Your task to perform on an android device: toggle javascript in the chrome app Image 0: 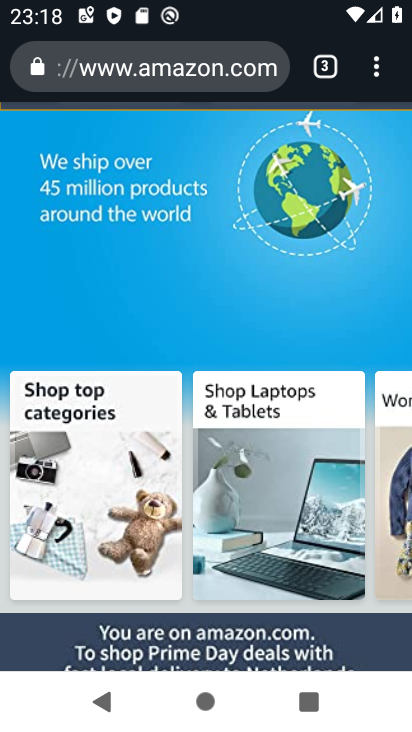
Step 0: press home button
Your task to perform on an android device: toggle javascript in the chrome app Image 1: 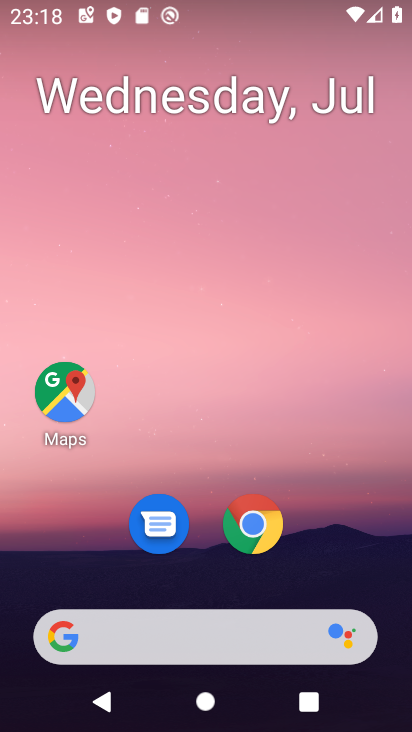
Step 1: click (243, 537)
Your task to perform on an android device: toggle javascript in the chrome app Image 2: 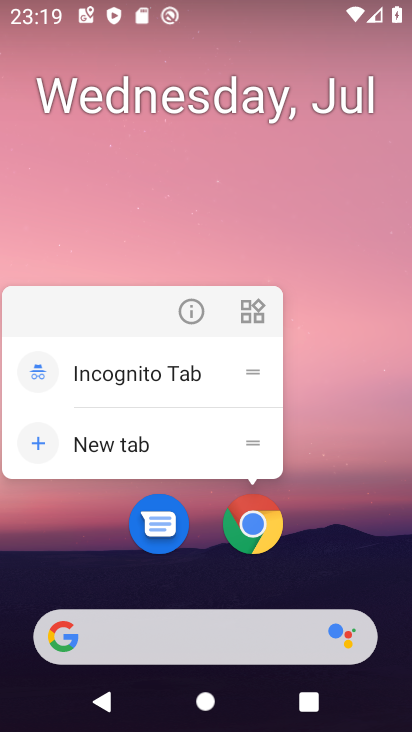
Step 2: click (259, 527)
Your task to perform on an android device: toggle javascript in the chrome app Image 3: 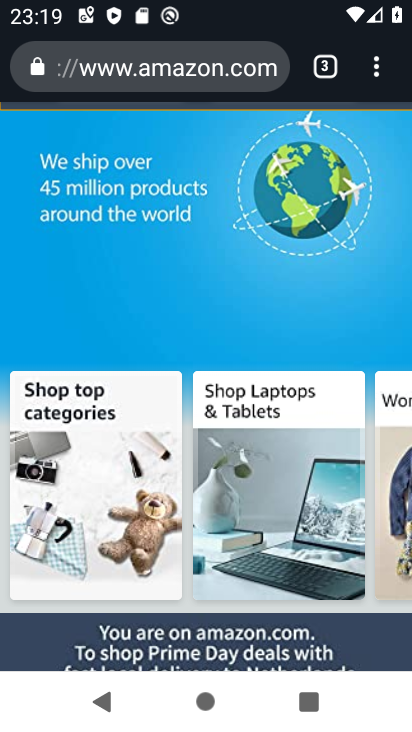
Step 3: drag from (376, 73) to (189, 534)
Your task to perform on an android device: toggle javascript in the chrome app Image 4: 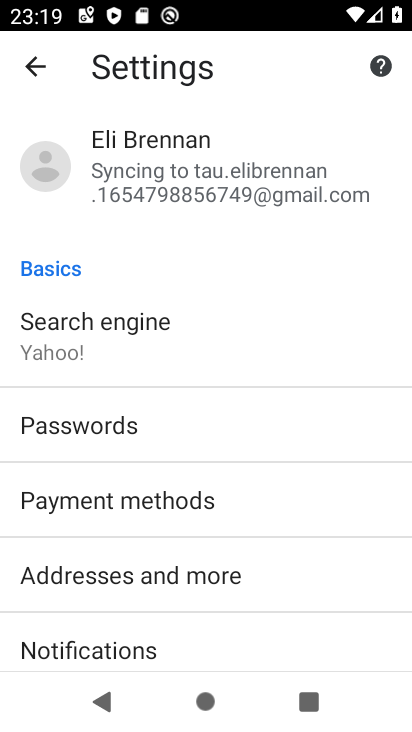
Step 4: drag from (188, 620) to (295, 114)
Your task to perform on an android device: toggle javascript in the chrome app Image 5: 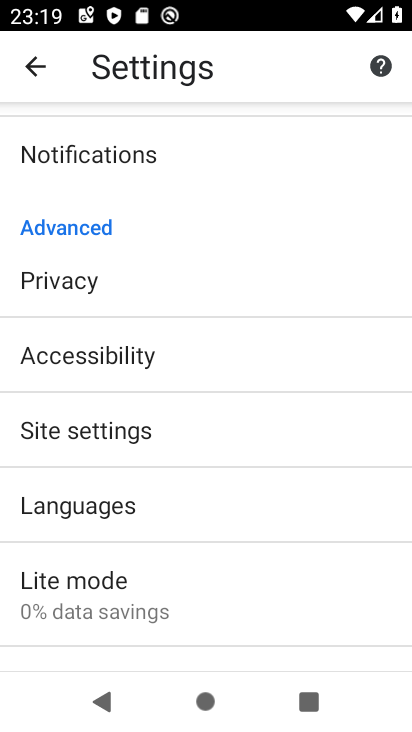
Step 5: click (114, 428)
Your task to perform on an android device: toggle javascript in the chrome app Image 6: 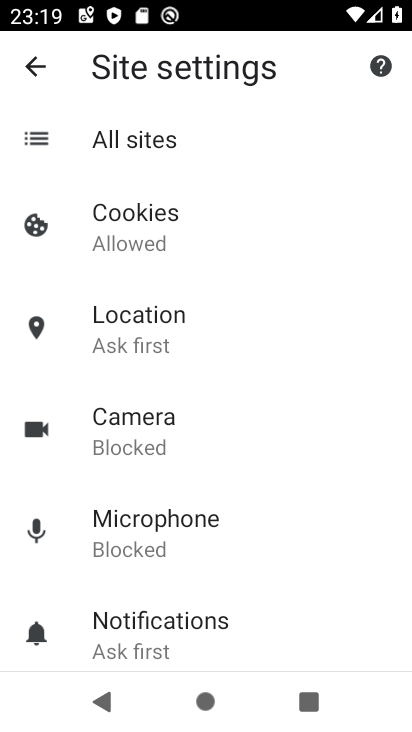
Step 6: drag from (224, 612) to (289, 409)
Your task to perform on an android device: toggle javascript in the chrome app Image 7: 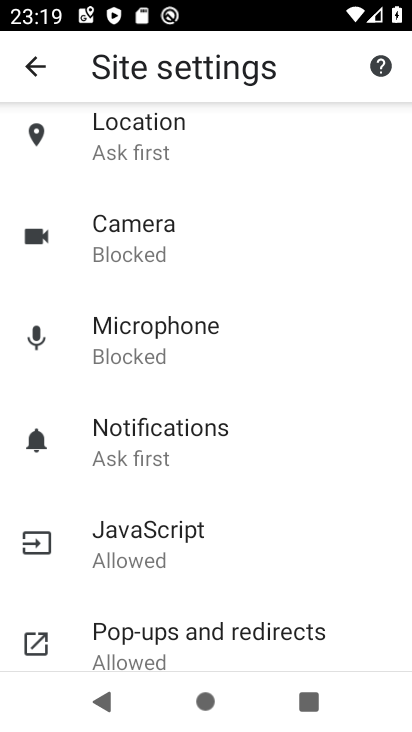
Step 7: click (154, 526)
Your task to perform on an android device: toggle javascript in the chrome app Image 8: 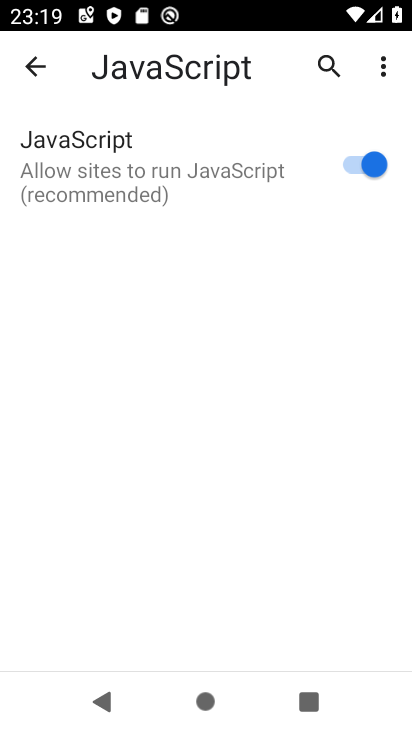
Step 8: click (358, 159)
Your task to perform on an android device: toggle javascript in the chrome app Image 9: 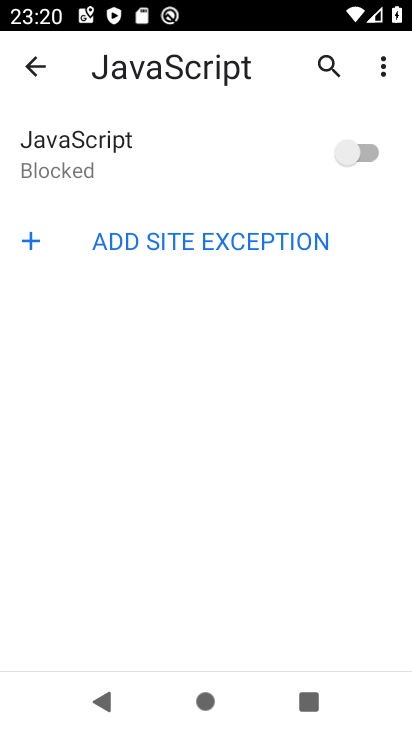
Step 9: task complete